Your task to perform on an android device: Go to Google Image 0: 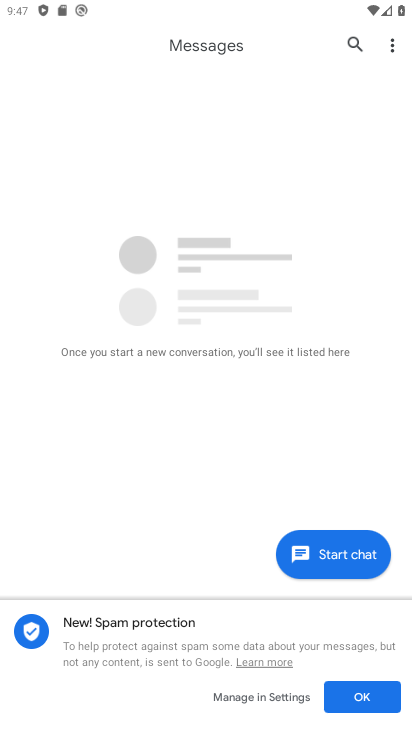
Step 0: press home button
Your task to perform on an android device: Go to Google Image 1: 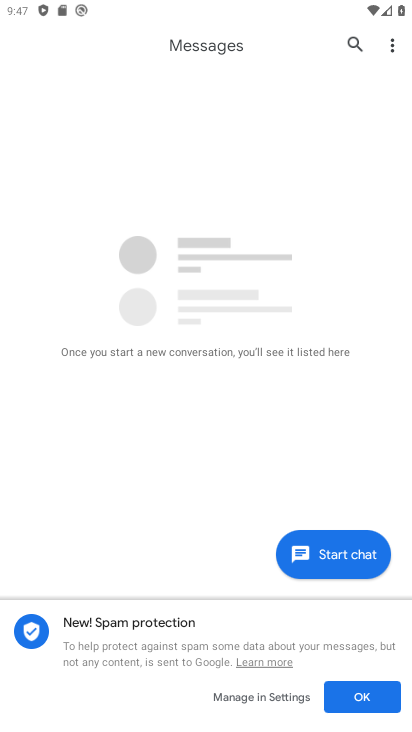
Step 1: press home button
Your task to perform on an android device: Go to Google Image 2: 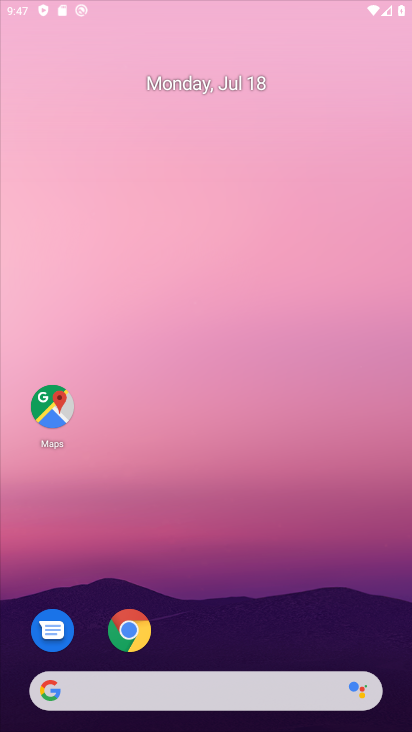
Step 2: press home button
Your task to perform on an android device: Go to Google Image 3: 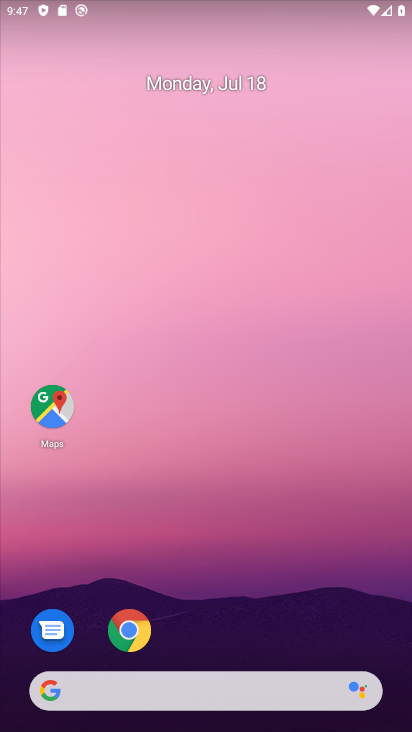
Step 3: drag from (207, 653) to (213, 205)
Your task to perform on an android device: Go to Google Image 4: 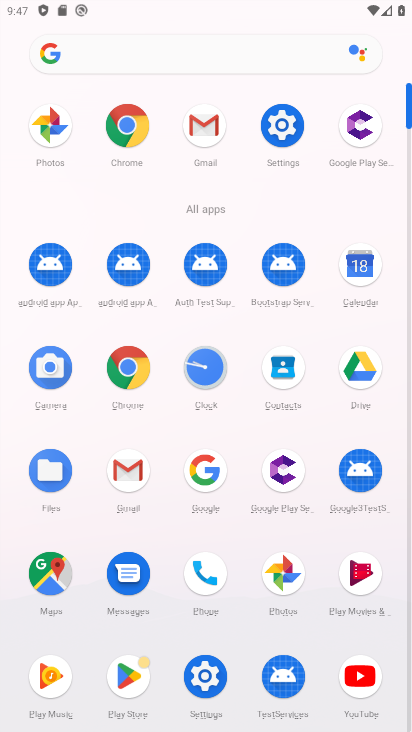
Step 4: click (224, 469)
Your task to perform on an android device: Go to Google Image 5: 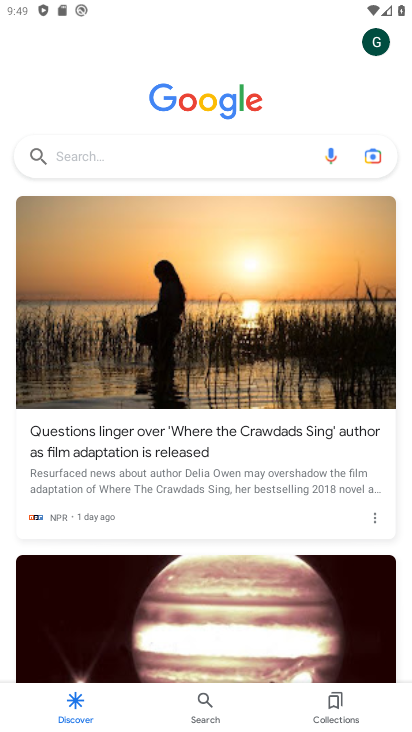
Step 5: task complete